Your task to perform on an android device: Clear all items from cart on newegg. Search for bose soundlink mini on newegg, select the first entry, add it to the cart, then select checkout. Image 0: 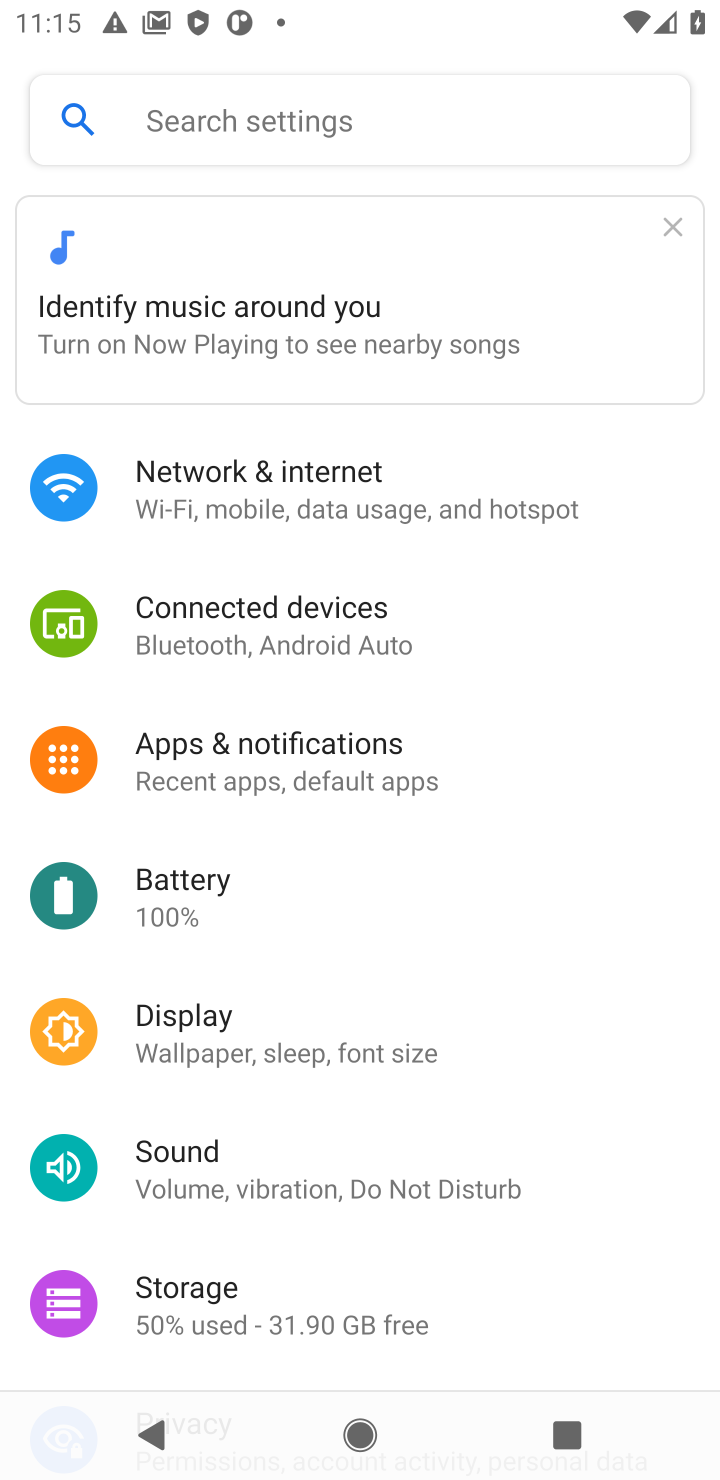
Step 0: press home button
Your task to perform on an android device: Clear all items from cart on newegg. Search for bose soundlink mini on newegg, select the first entry, add it to the cart, then select checkout. Image 1: 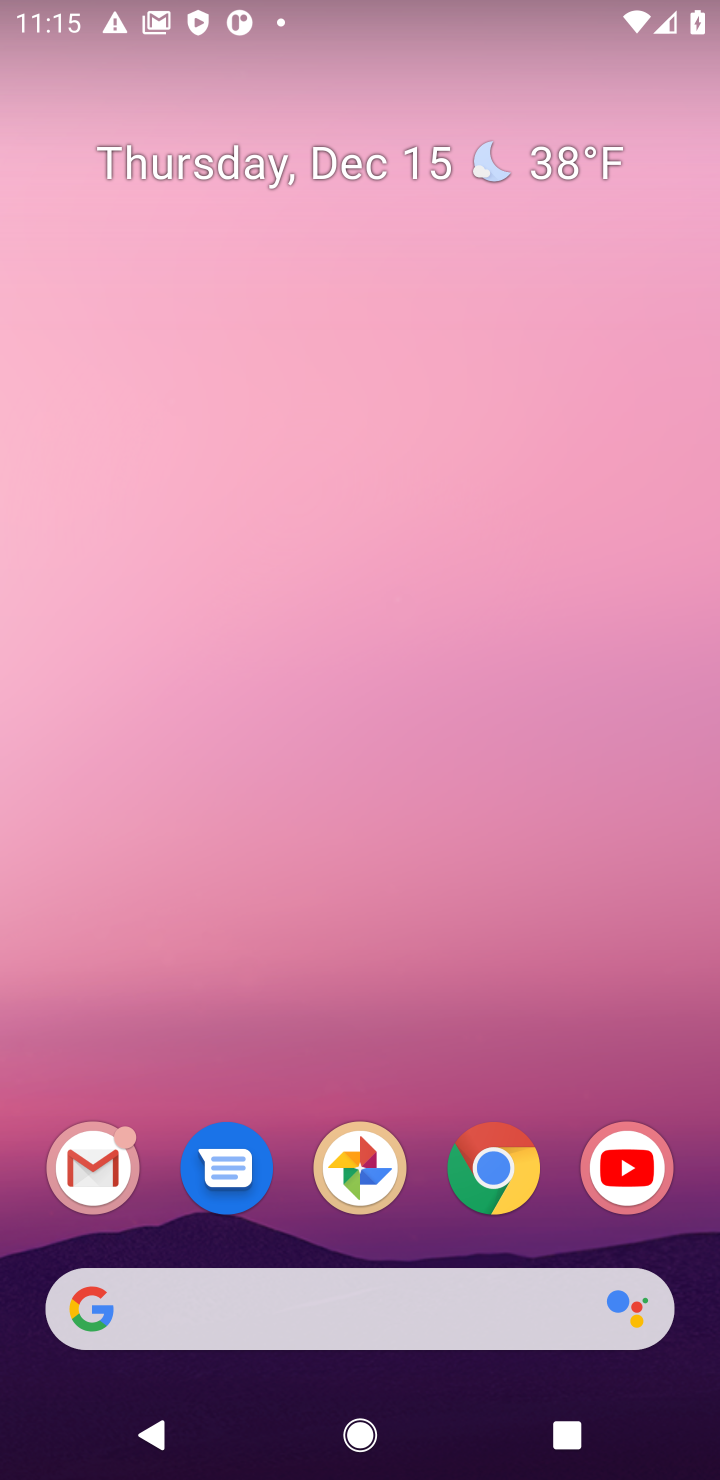
Step 1: click (480, 1166)
Your task to perform on an android device: Clear all items from cart on newegg. Search for bose soundlink mini on newegg, select the first entry, add it to the cart, then select checkout. Image 2: 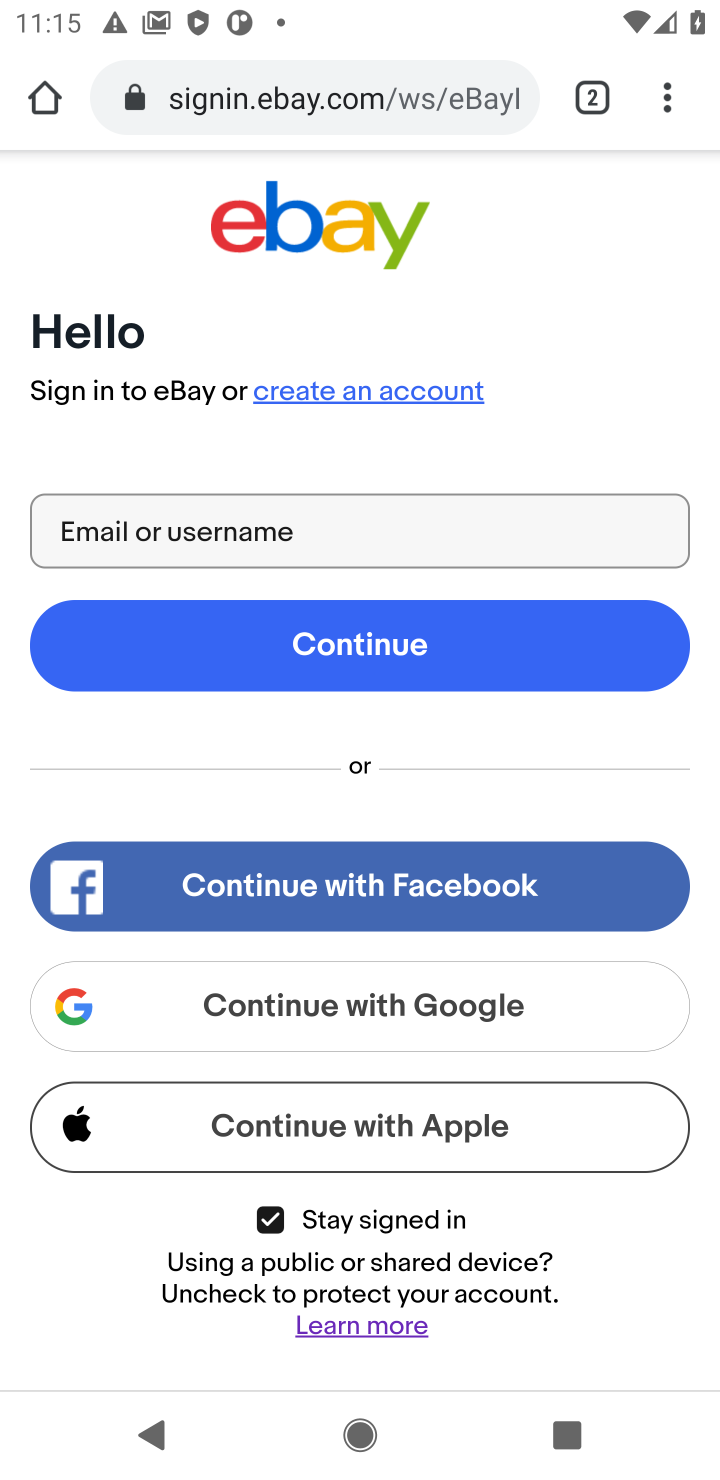
Step 2: click (330, 84)
Your task to perform on an android device: Clear all items from cart on newegg. Search for bose soundlink mini on newegg, select the first entry, add it to the cart, then select checkout. Image 3: 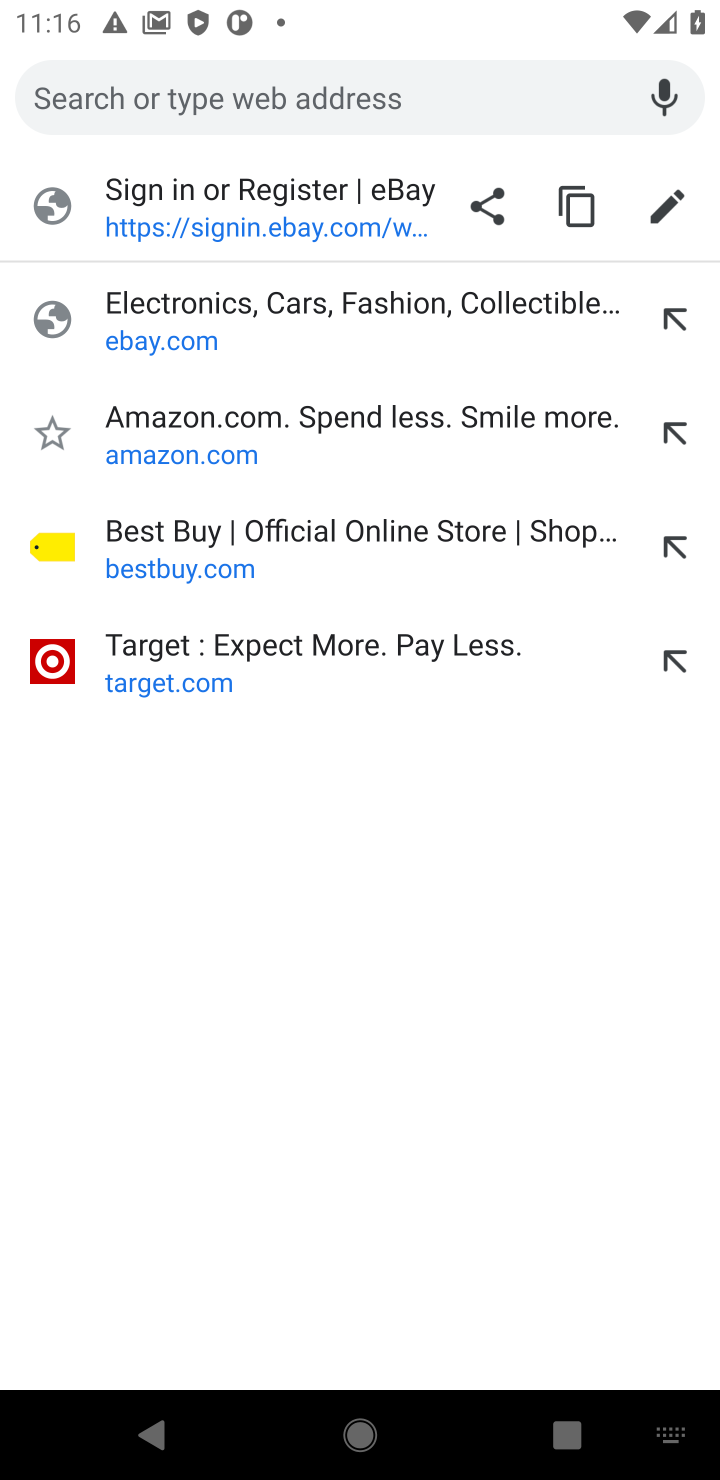
Step 3: type "newegg"
Your task to perform on an android device: Clear all items from cart on newegg. Search for bose soundlink mini on newegg, select the first entry, add it to the cart, then select checkout. Image 4: 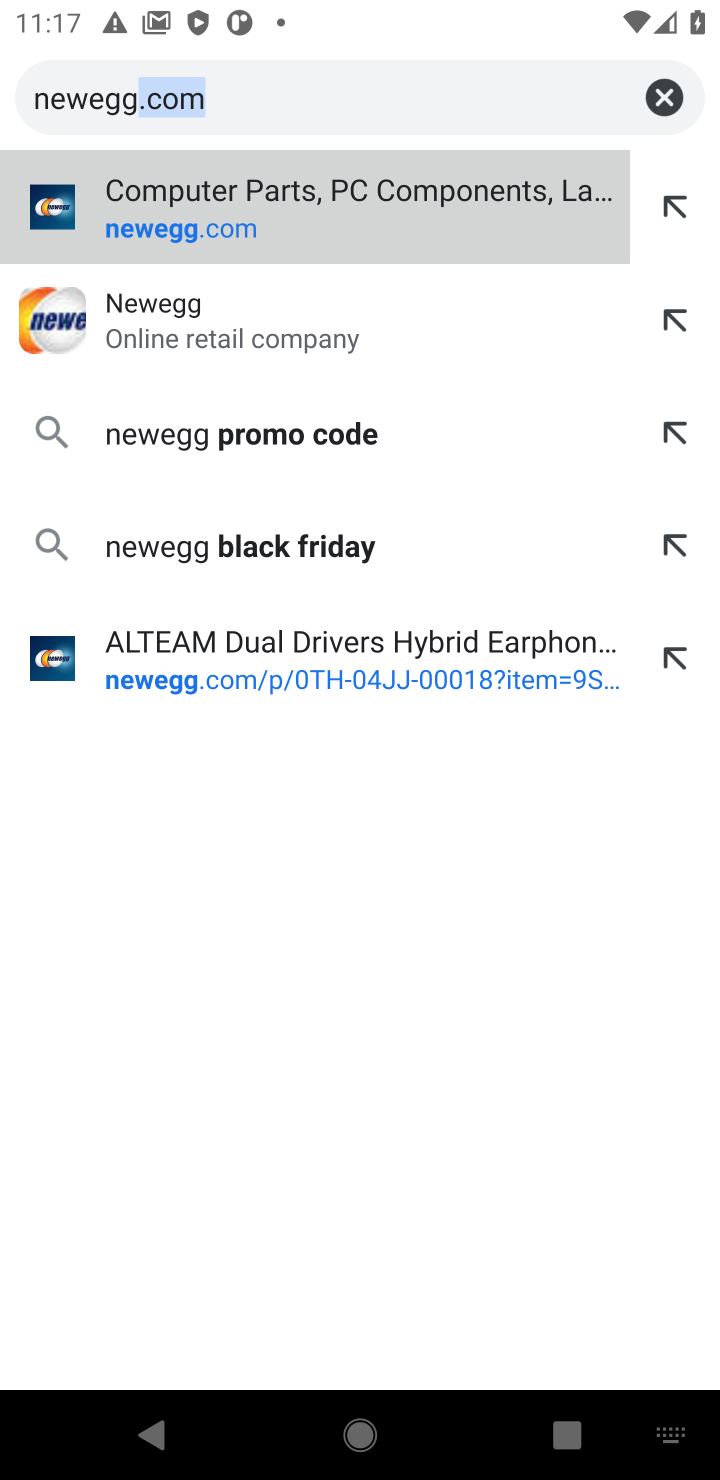
Step 4: click (243, 188)
Your task to perform on an android device: Clear all items from cart on newegg. Search for bose soundlink mini on newegg, select the first entry, add it to the cart, then select checkout. Image 5: 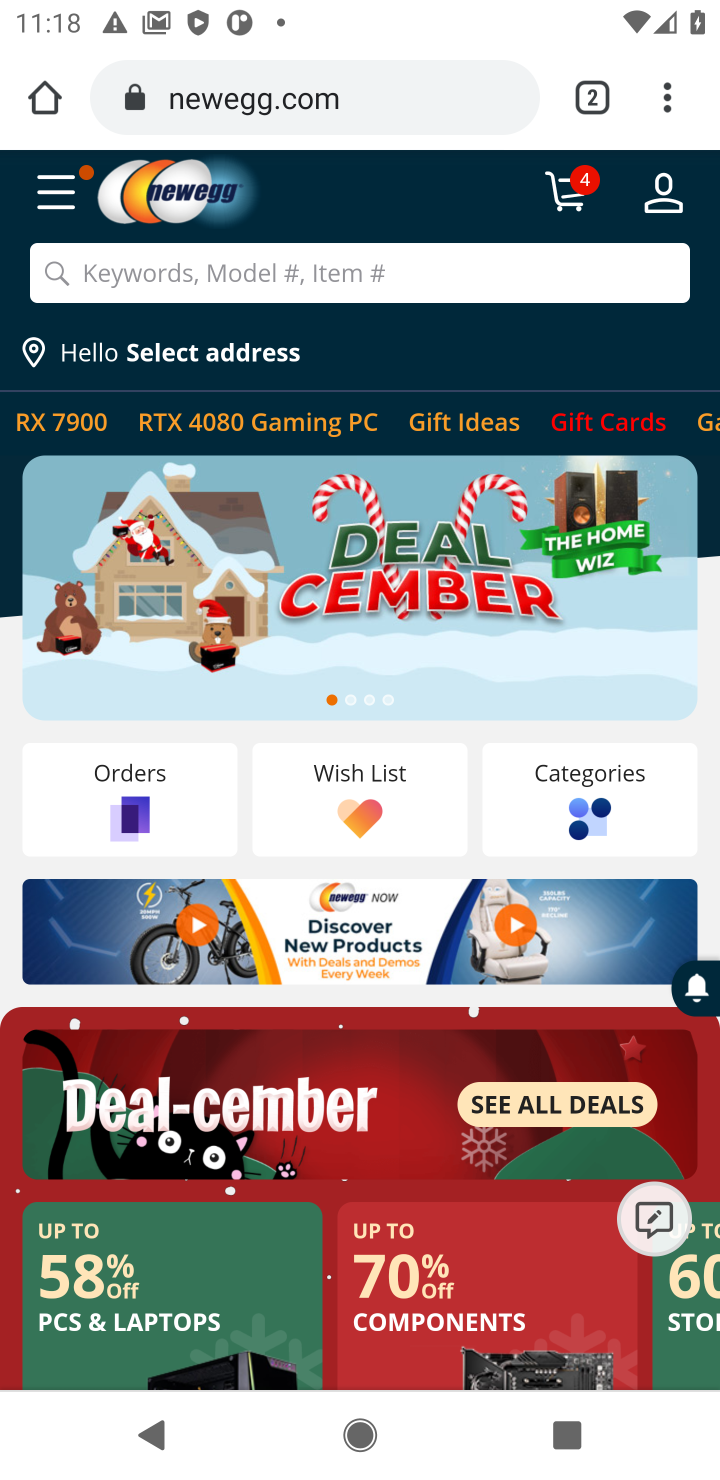
Step 5: click (578, 194)
Your task to perform on an android device: Clear all items from cart on newegg. Search for bose soundlink mini on newegg, select the first entry, add it to the cart, then select checkout. Image 6: 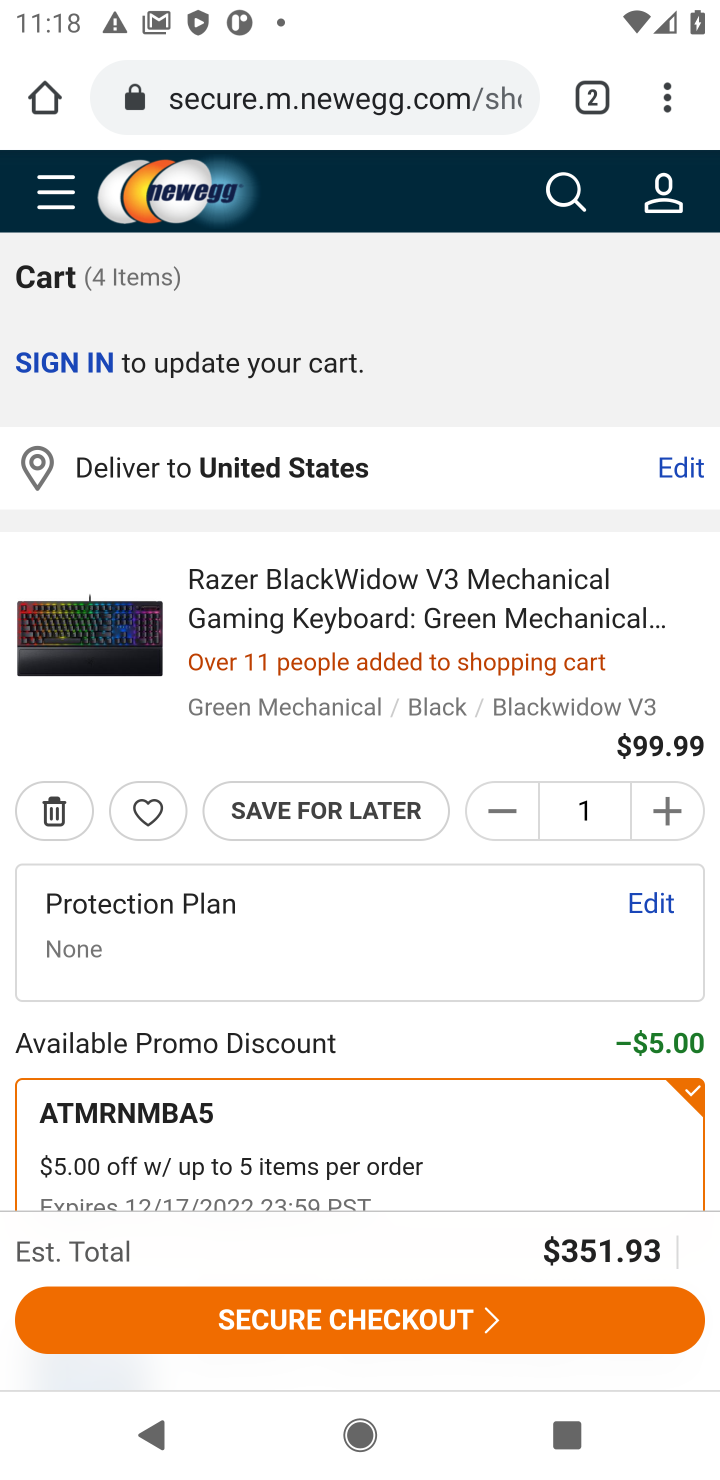
Step 6: click (44, 815)
Your task to perform on an android device: Clear all items from cart on newegg. Search for bose soundlink mini on newegg, select the first entry, add it to the cart, then select checkout. Image 7: 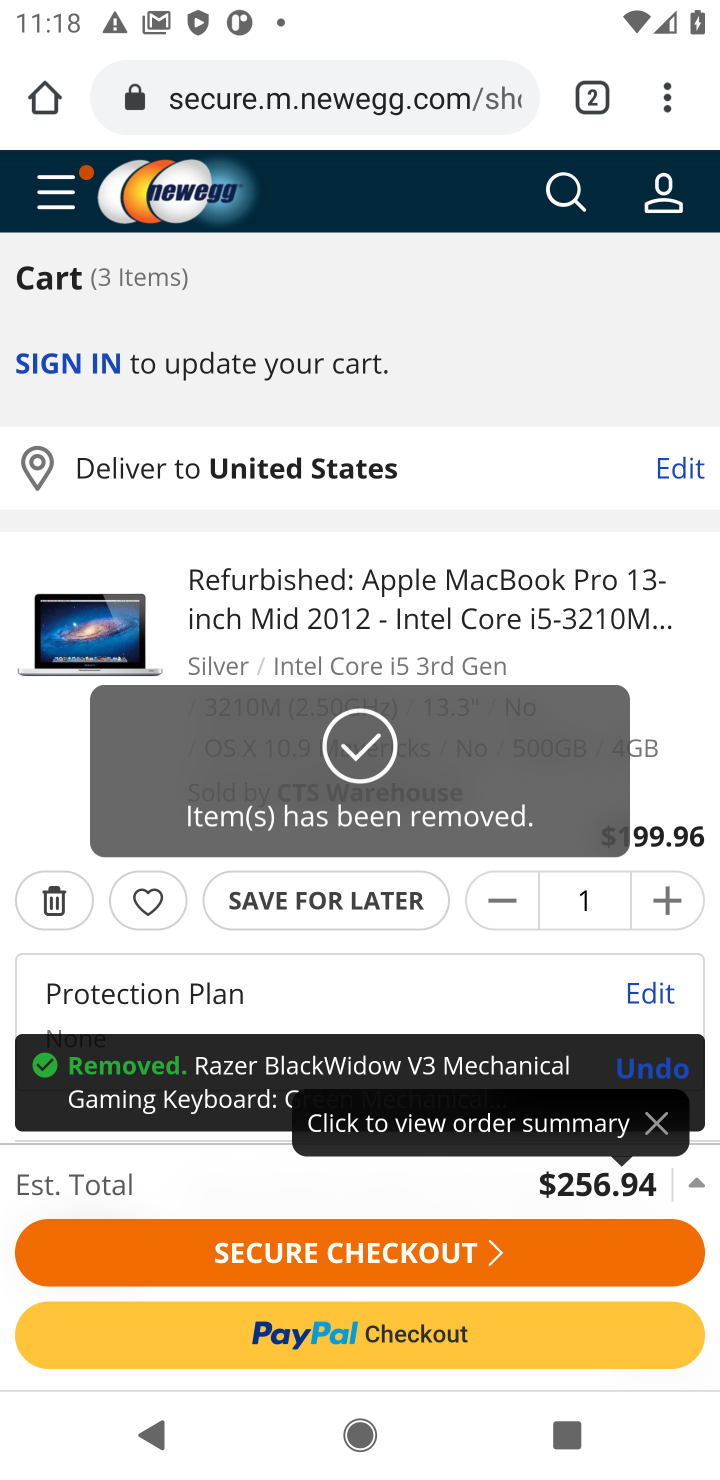
Step 7: click (46, 916)
Your task to perform on an android device: Clear all items from cart on newegg. Search for bose soundlink mini on newegg, select the first entry, add it to the cart, then select checkout. Image 8: 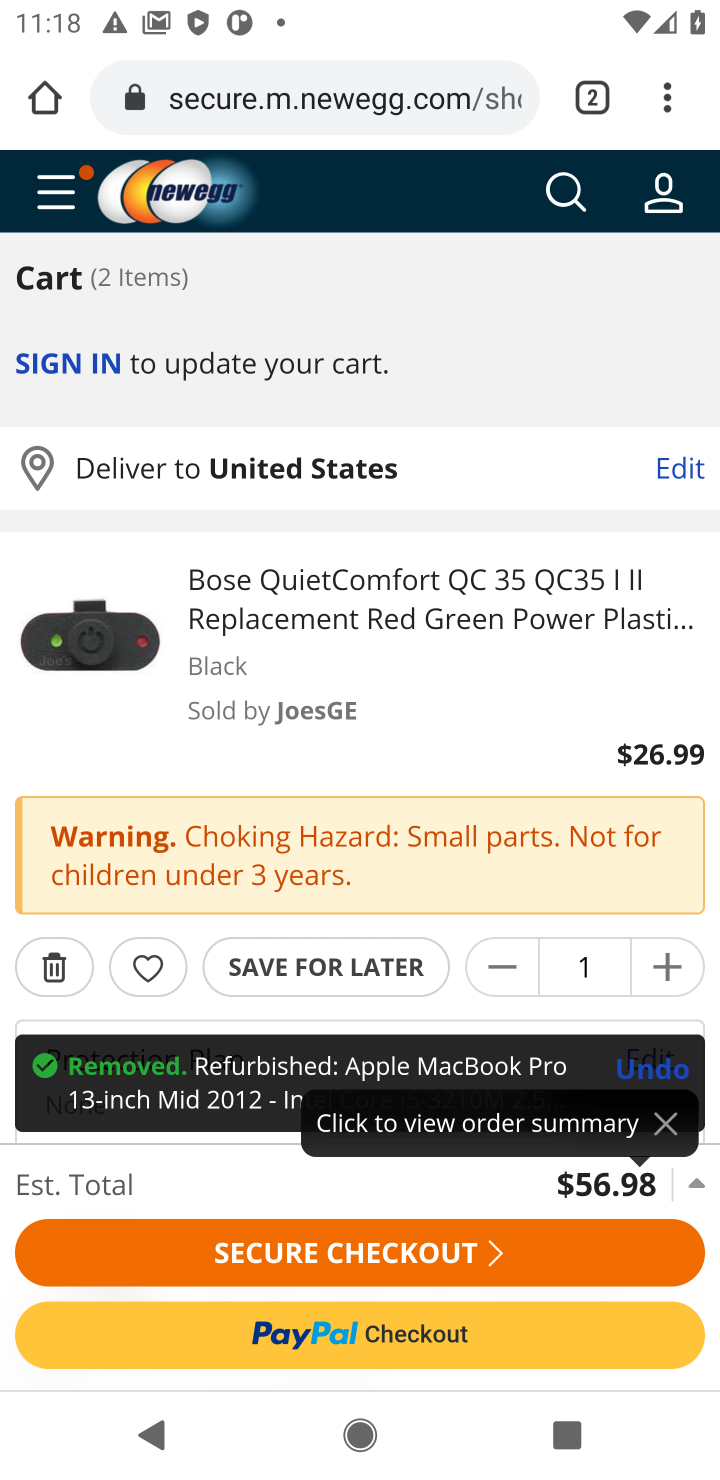
Step 8: click (40, 979)
Your task to perform on an android device: Clear all items from cart on newegg. Search for bose soundlink mini on newegg, select the first entry, add it to the cart, then select checkout. Image 9: 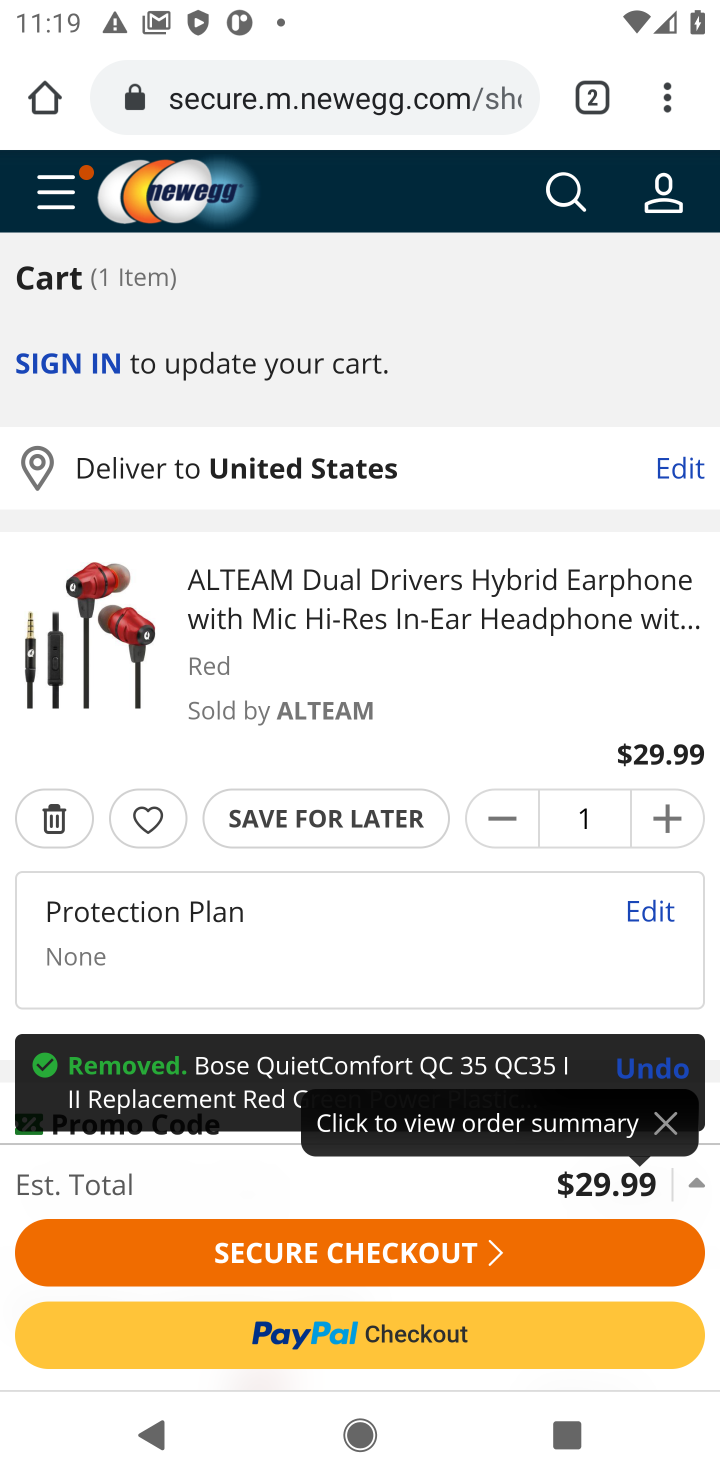
Step 9: click (36, 826)
Your task to perform on an android device: Clear all items from cart on newegg. Search for bose soundlink mini on newegg, select the first entry, add it to the cart, then select checkout. Image 10: 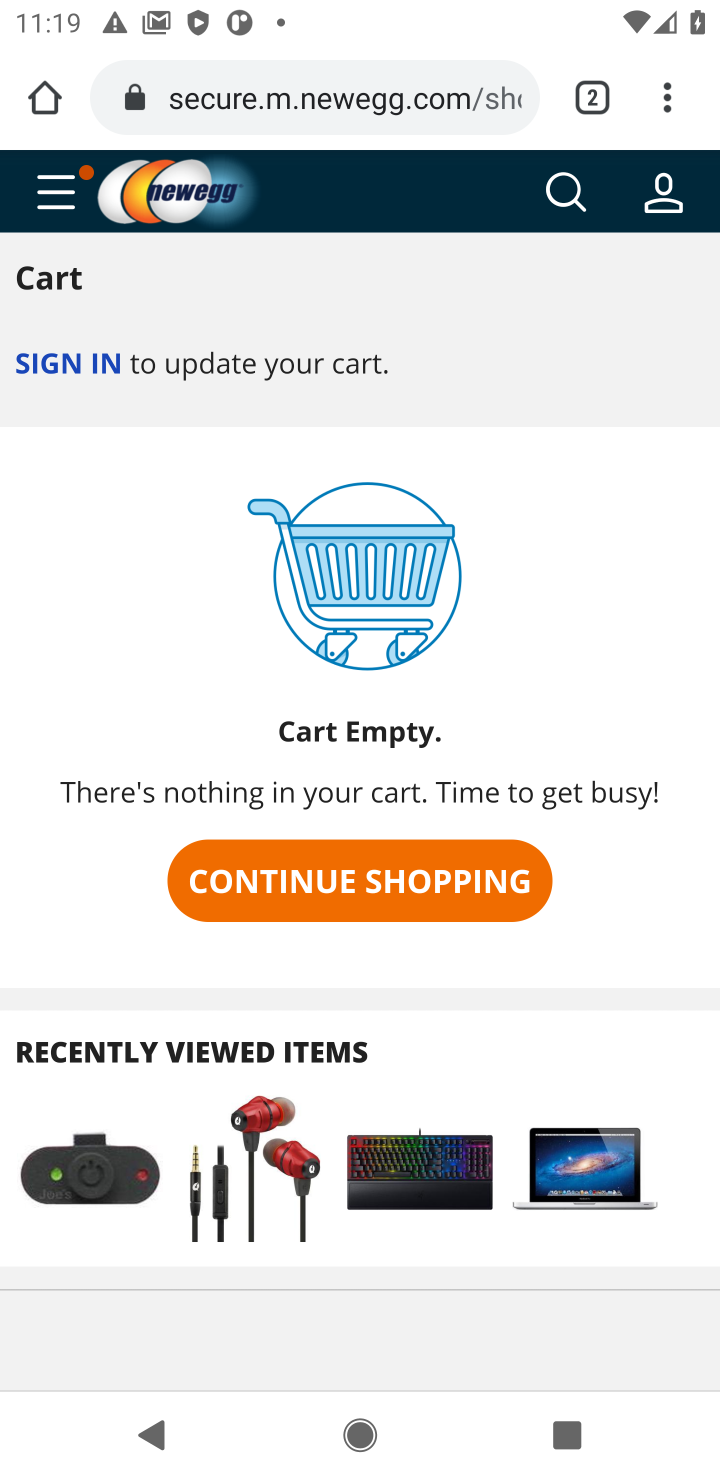
Step 10: click (550, 178)
Your task to perform on an android device: Clear all items from cart on newegg. Search for bose soundlink mini on newegg, select the first entry, add it to the cart, then select checkout. Image 11: 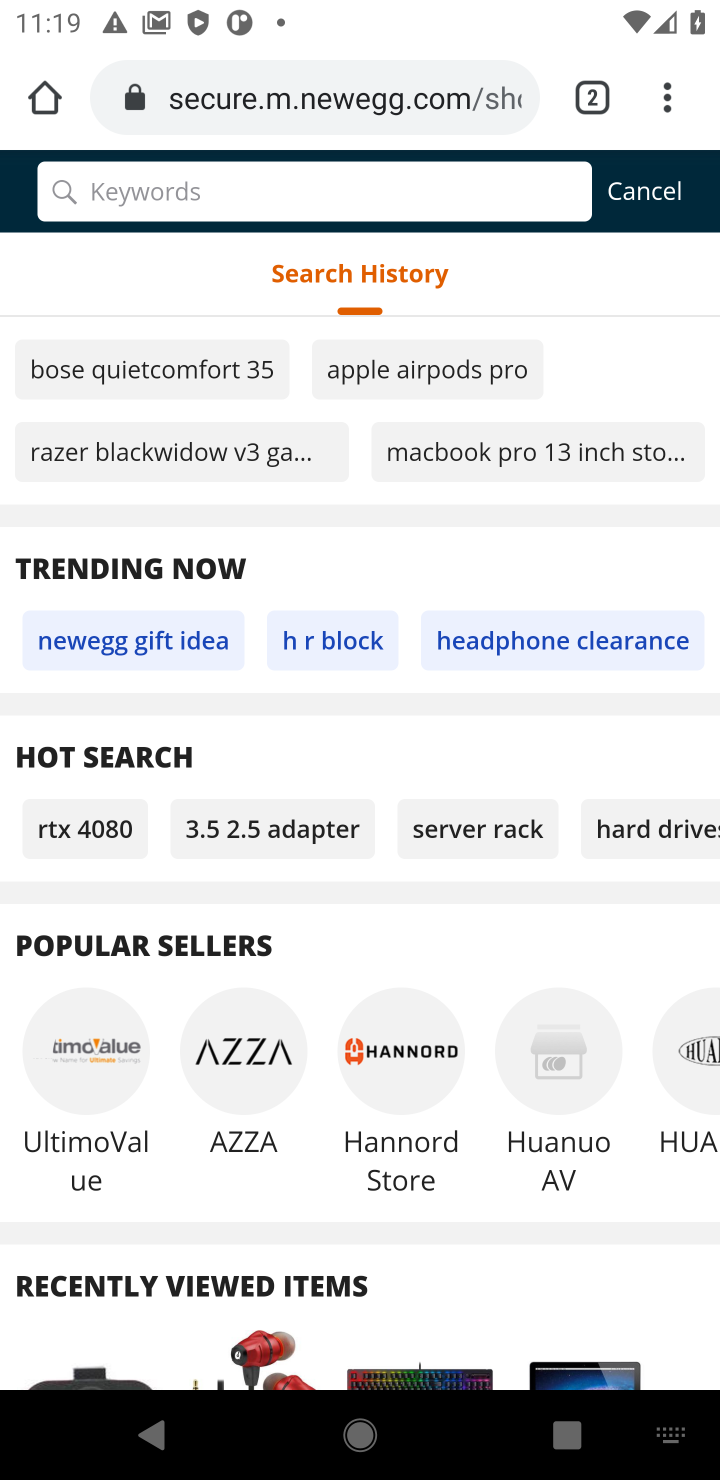
Step 11: type "bose soundlink mini"
Your task to perform on an android device: Clear all items from cart on newegg. Search for bose soundlink mini on newegg, select the first entry, add it to the cart, then select checkout. Image 12: 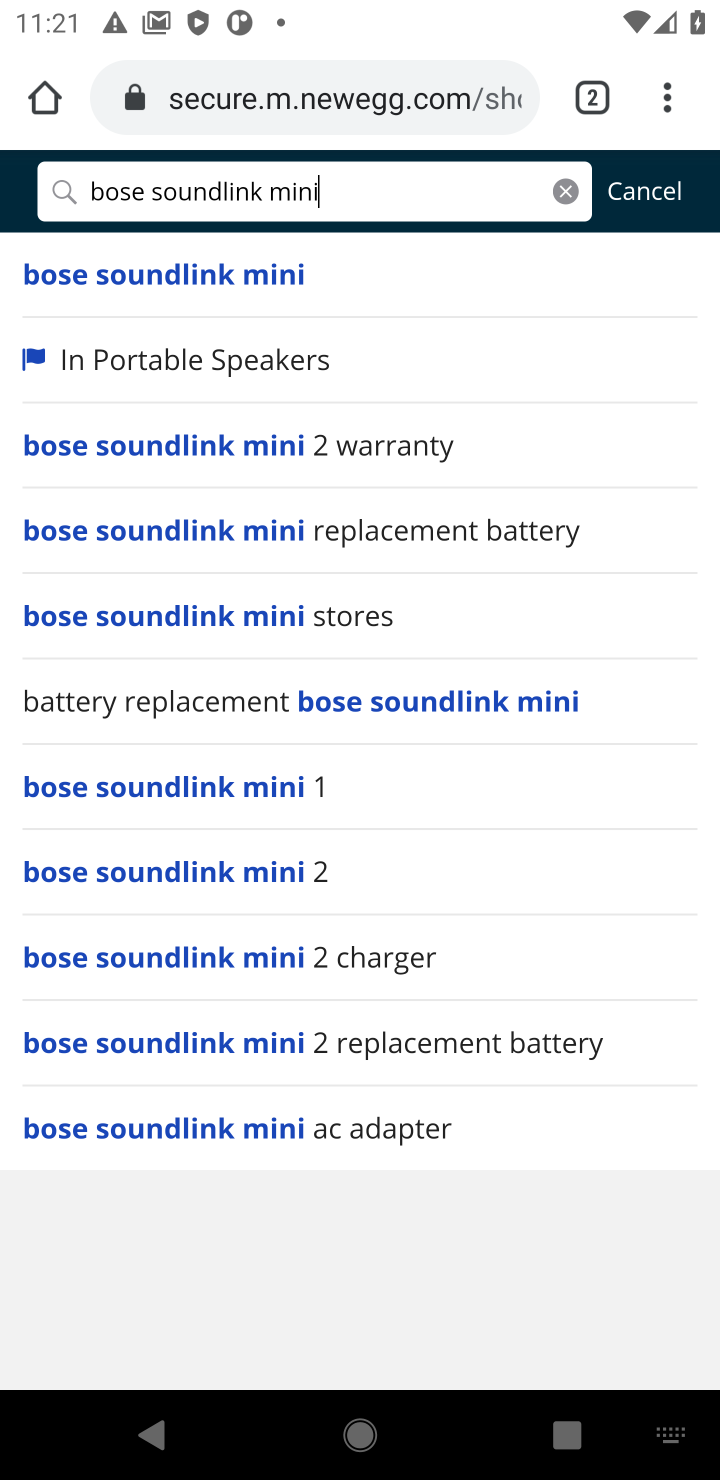
Step 12: click (287, 267)
Your task to perform on an android device: Clear all items from cart on newegg. Search for bose soundlink mini on newegg, select the first entry, add it to the cart, then select checkout. Image 13: 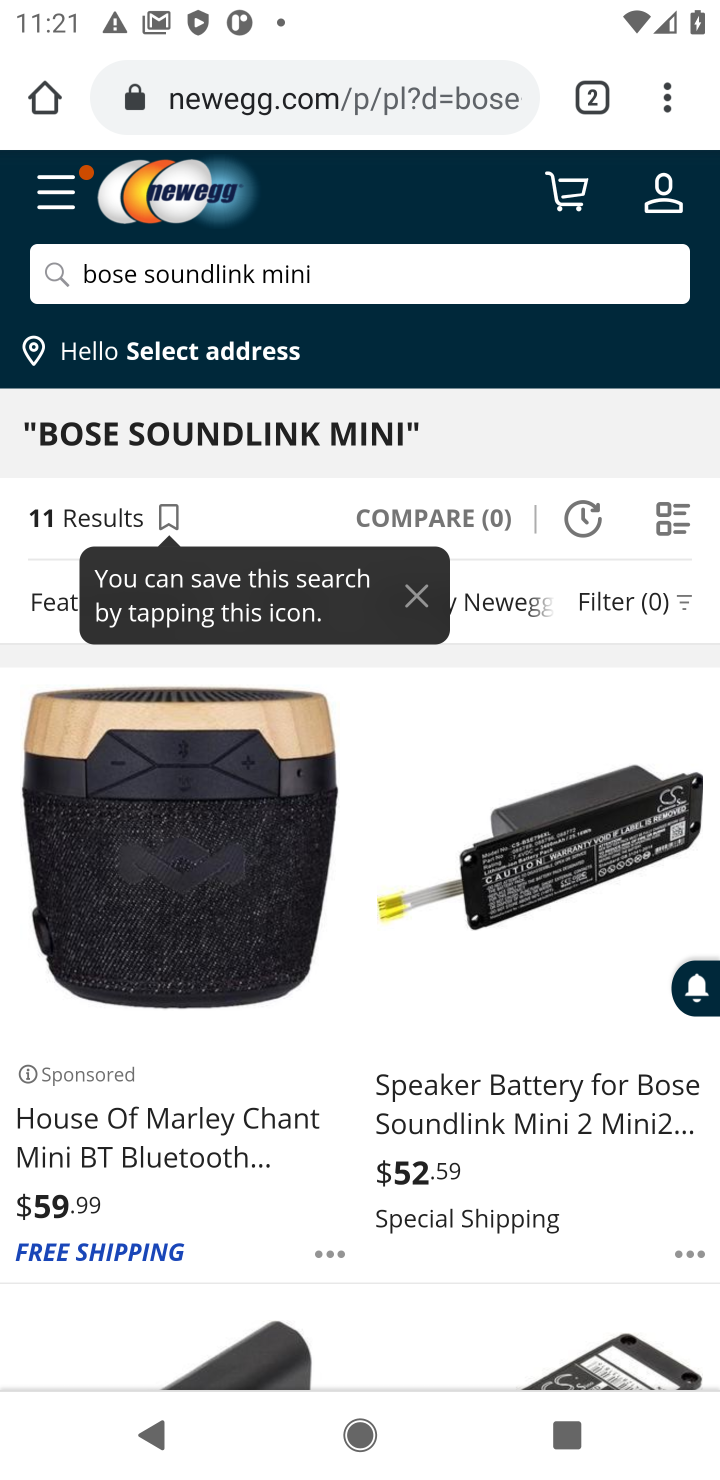
Step 13: click (193, 957)
Your task to perform on an android device: Clear all items from cart on newegg. Search for bose soundlink mini on newegg, select the first entry, add it to the cart, then select checkout. Image 14: 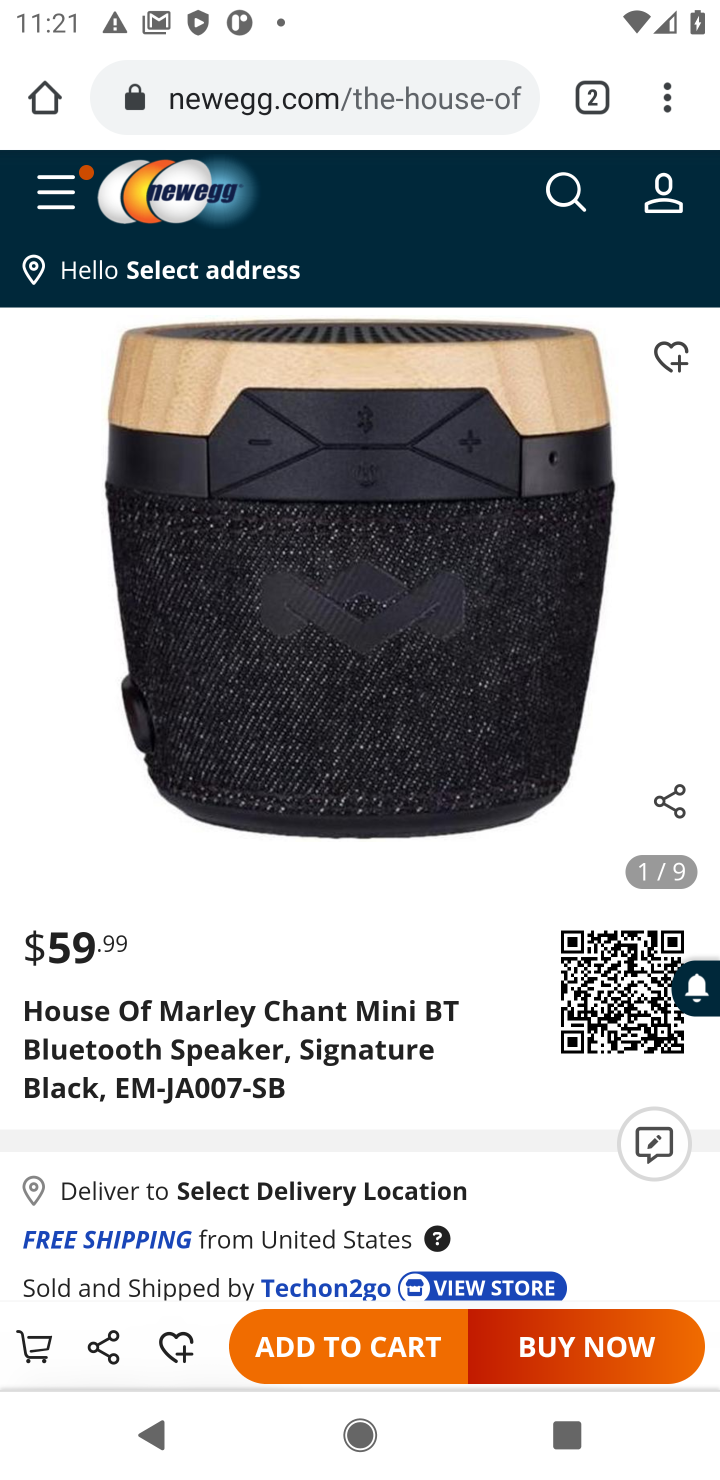
Step 14: click (369, 1343)
Your task to perform on an android device: Clear all items from cart on newegg. Search for bose soundlink mini on newegg, select the first entry, add it to the cart, then select checkout. Image 15: 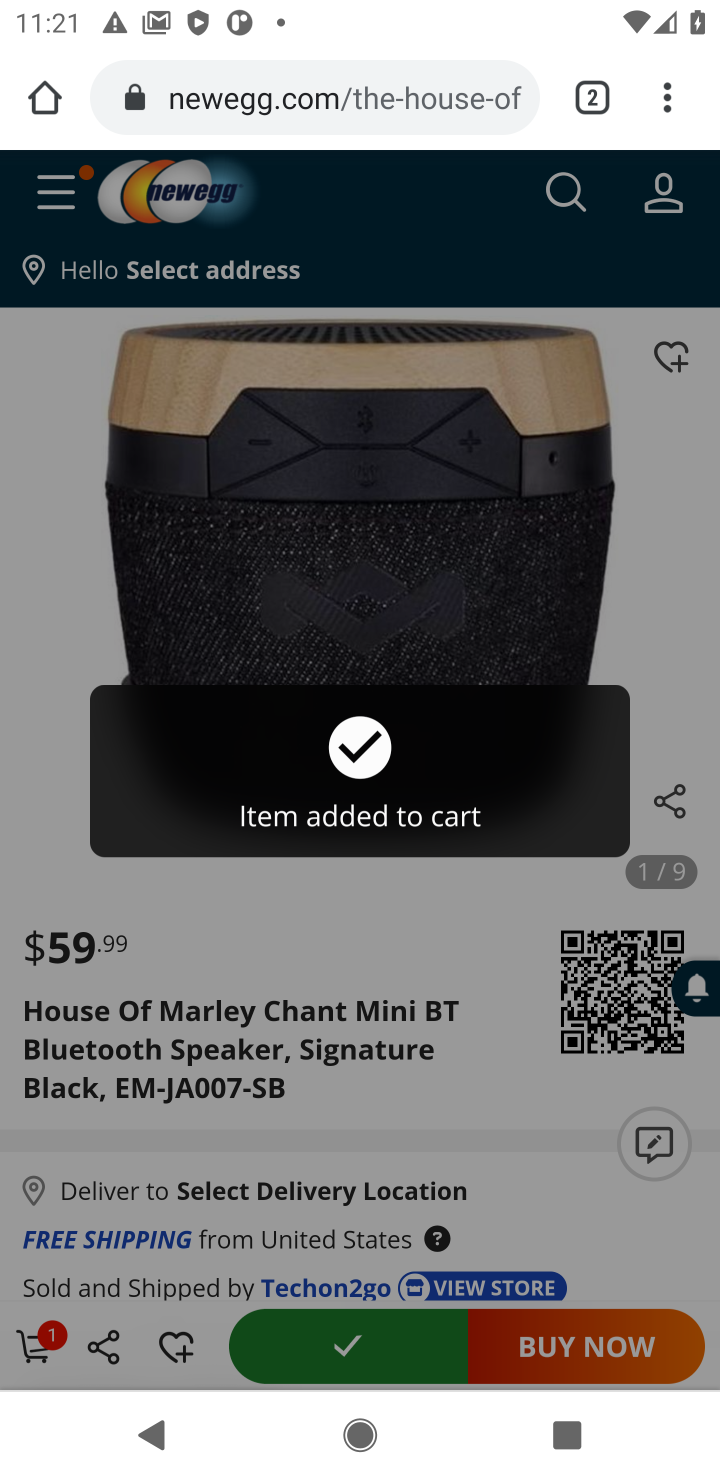
Step 15: click (39, 1346)
Your task to perform on an android device: Clear all items from cart on newegg. Search for bose soundlink mini on newegg, select the first entry, add it to the cart, then select checkout. Image 16: 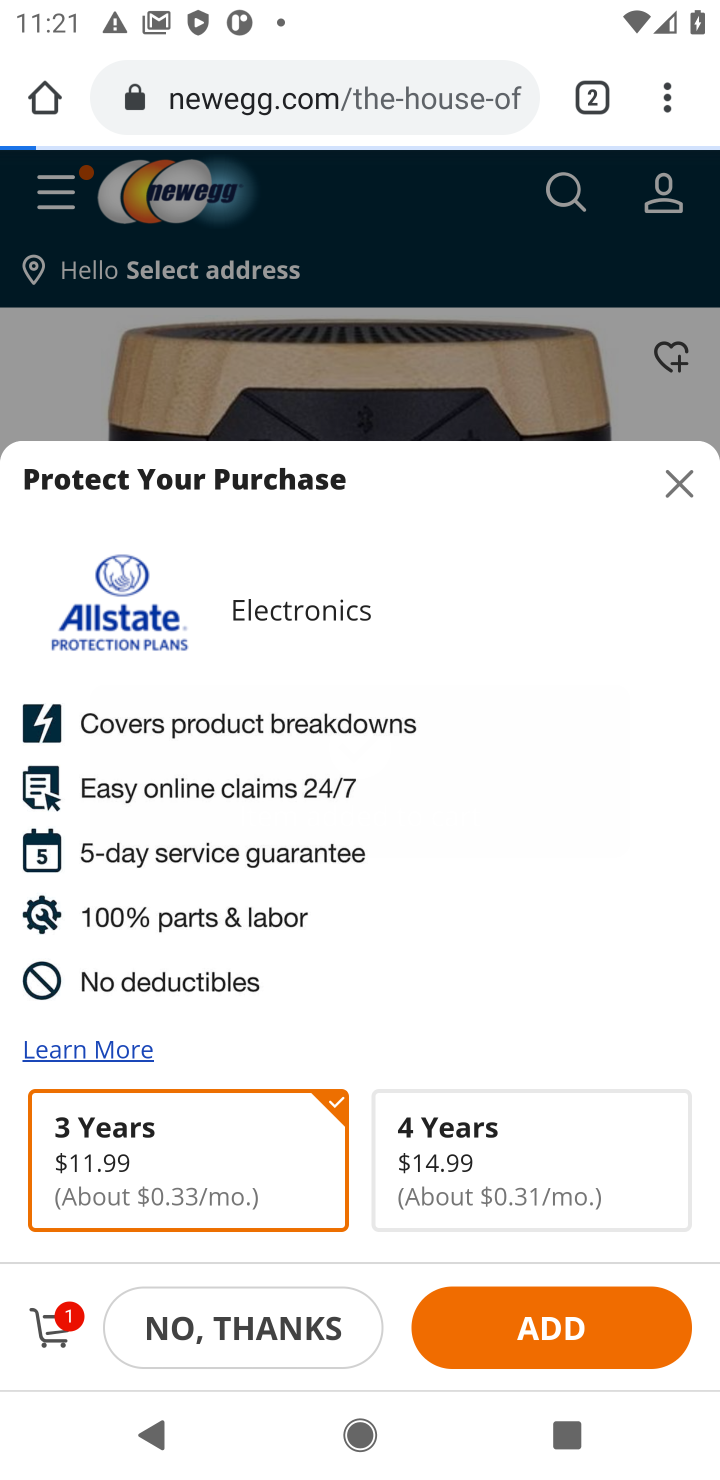
Step 16: click (39, 1346)
Your task to perform on an android device: Clear all items from cart on newegg. Search for bose soundlink mini on newegg, select the first entry, add it to the cart, then select checkout. Image 17: 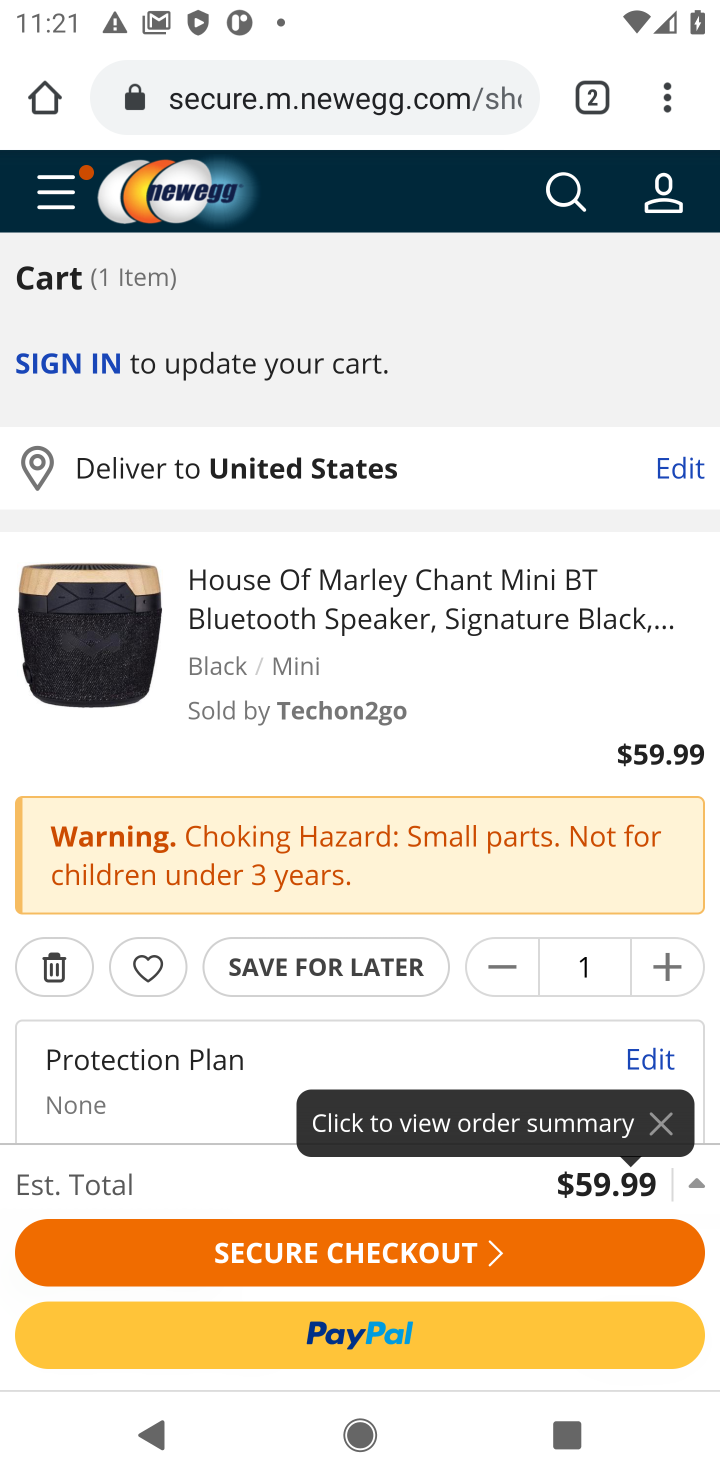
Step 17: click (249, 1317)
Your task to perform on an android device: Clear all items from cart on newegg. Search for bose soundlink mini on newegg, select the first entry, add it to the cart, then select checkout. Image 18: 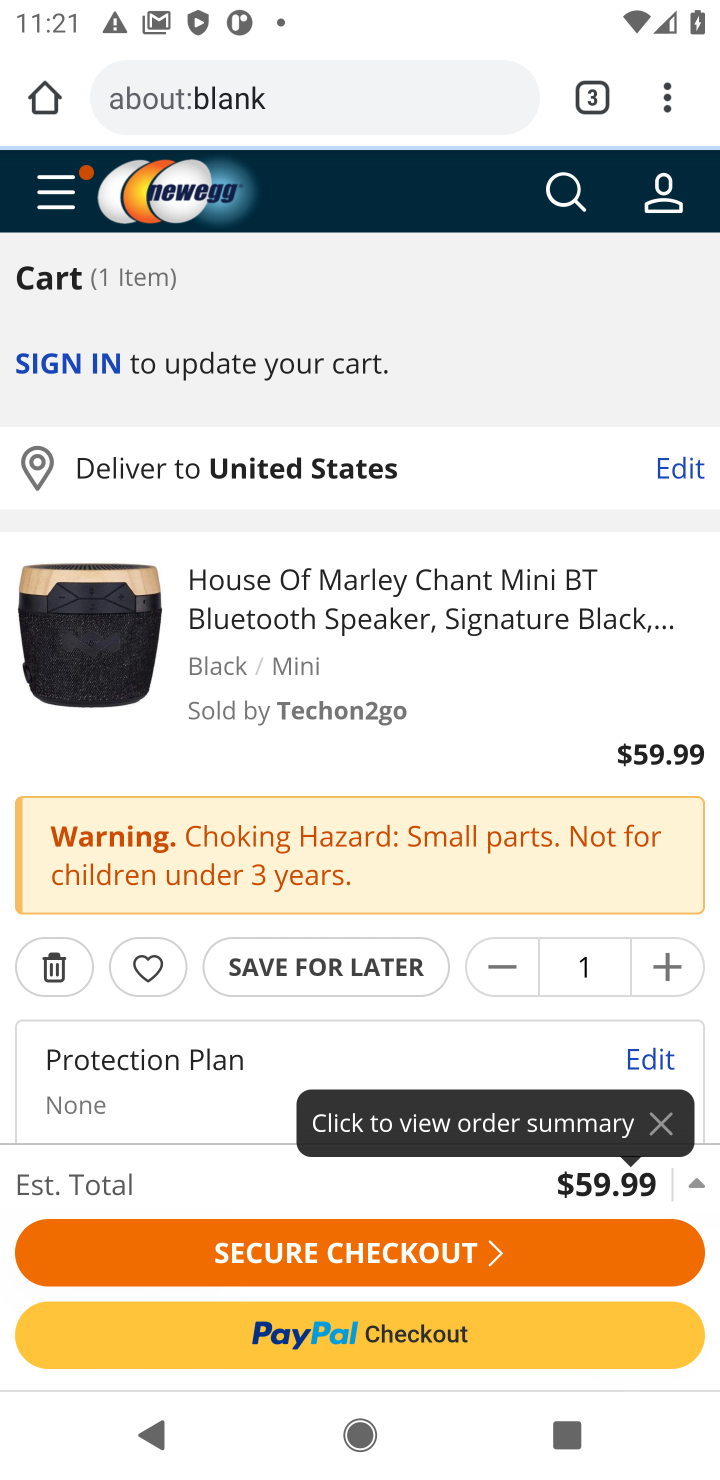
Step 18: task complete